Your task to perform on an android device: Open CNN.com Image 0: 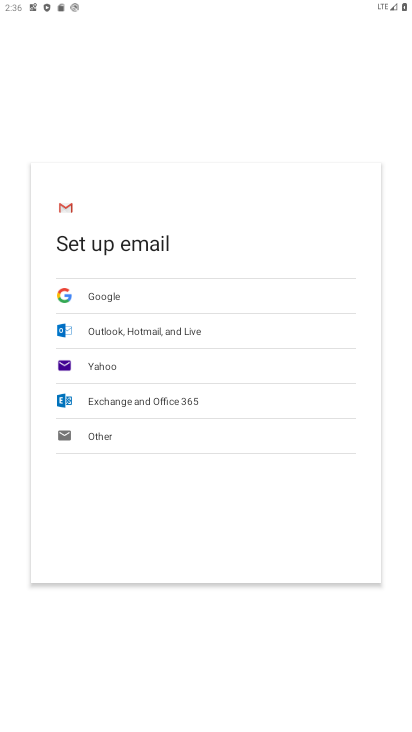
Step 0: press home button
Your task to perform on an android device: Open CNN.com Image 1: 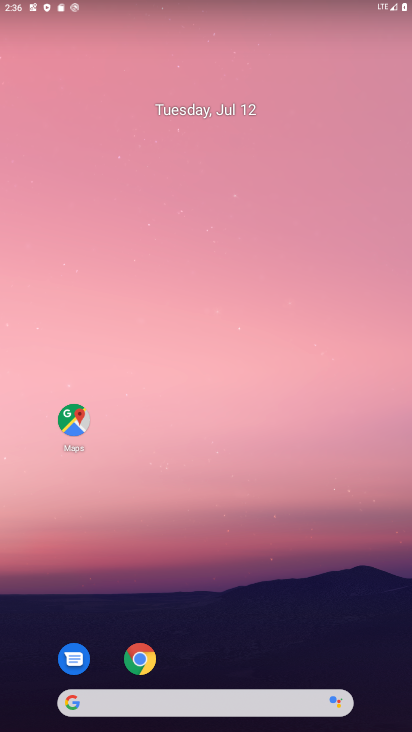
Step 1: click (136, 664)
Your task to perform on an android device: Open CNN.com Image 2: 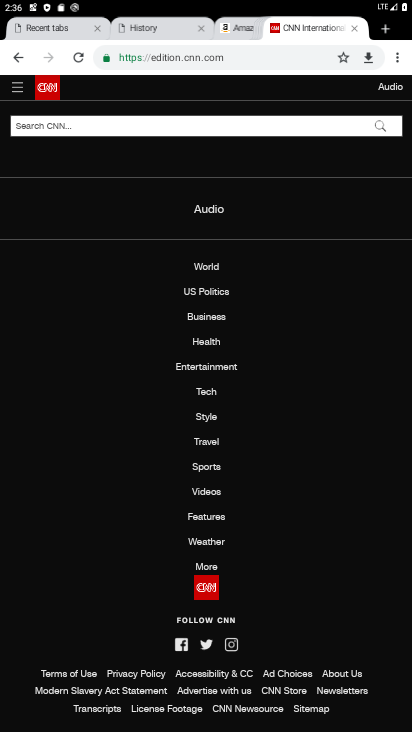
Step 2: task complete